Your task to perform on an android device: turn vacation reply on in the gmail app Image 0: 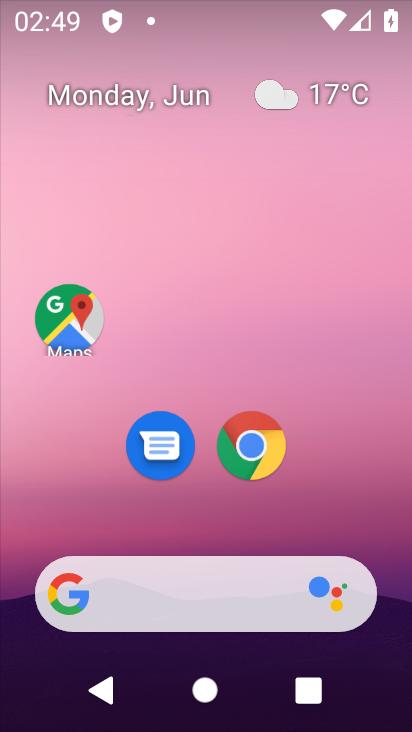
Step 0: drag from (71, 526) to (161, 82)
Your task to perform on an android device: turn vacation reply on in the gmail app Image 1: 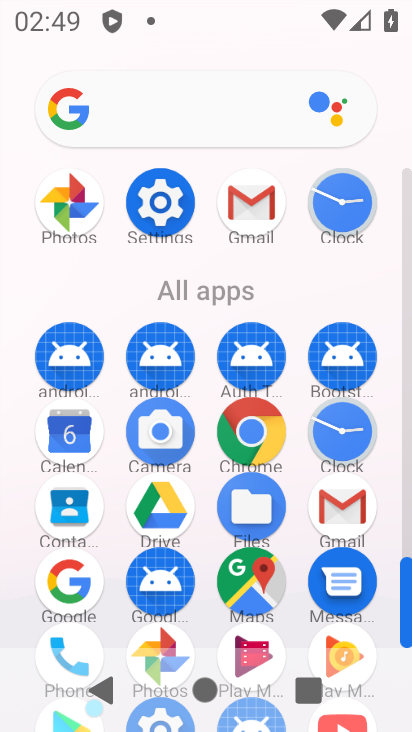
Step 1: drag from (155, 533) to (223, 277)
Your task to perform on an android device: turn vacation reply on in the gmail app Image 2: 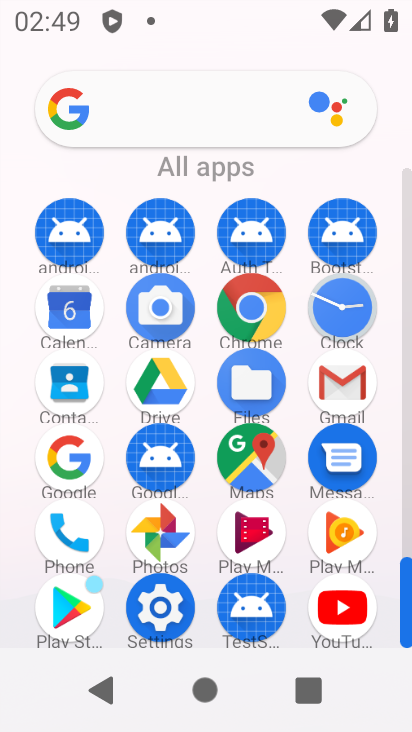
Step 2: click (161, 615)
Your task to perform on an android device: turn vacation reply on in the gmail app Image 3: 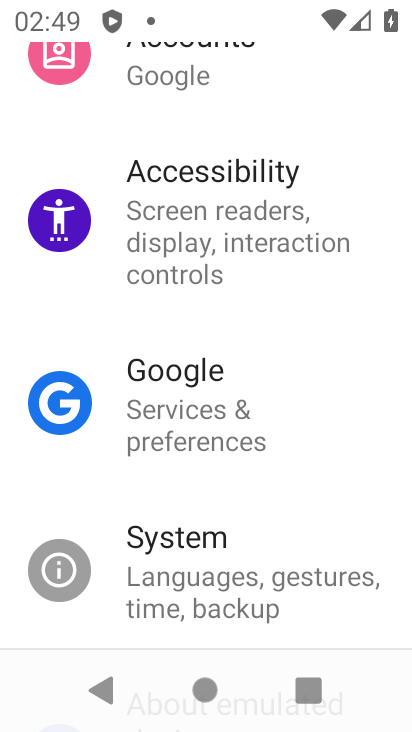
Step 3: press home button
Your task to perform on an android device: turn vacation reply on in the gmail app Image 4: 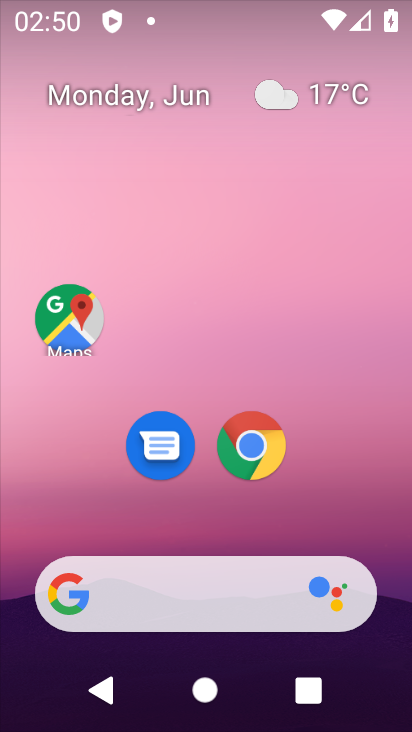
Step 4: drag from (108, 544) to (190, 25)
Your task to perform on an android device: turn vacation reply on in the gmail app Image 5: 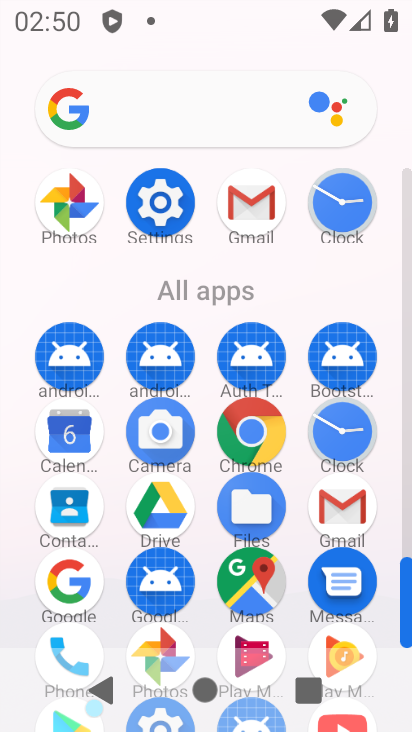
Step 5: click (346, 520)
Your task to perform on an android device: turn vacation reply on in the gmail app Image 6: 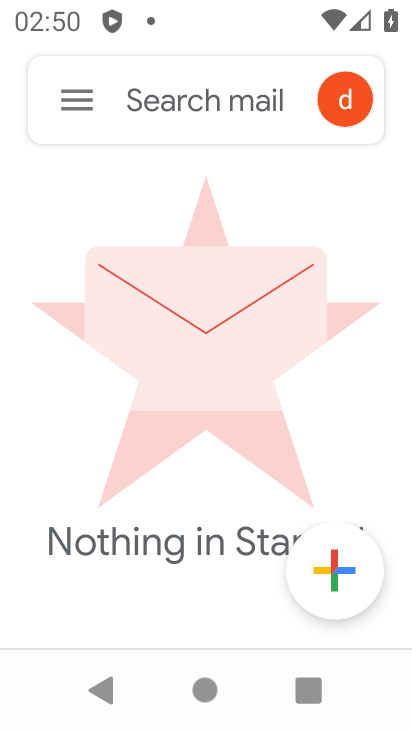
Step 6: click (74, 97)
Your task to perform on an android device: turn vacation reply on in the gmail app Image 7: 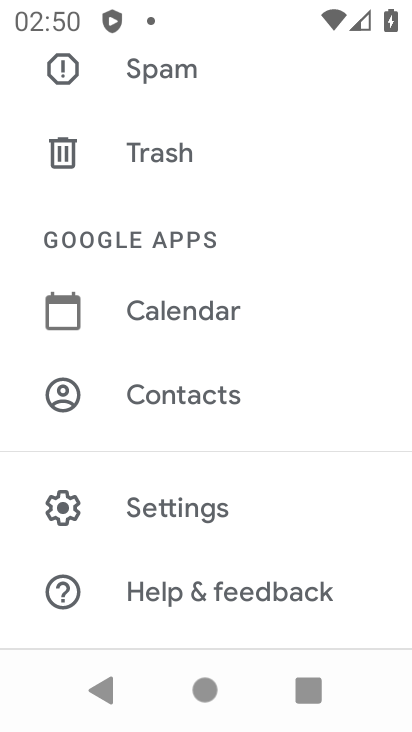
Step 7: click (218, 516)
Your task to perform on an android device: turn vacation reply on in the gmail app Image 8: 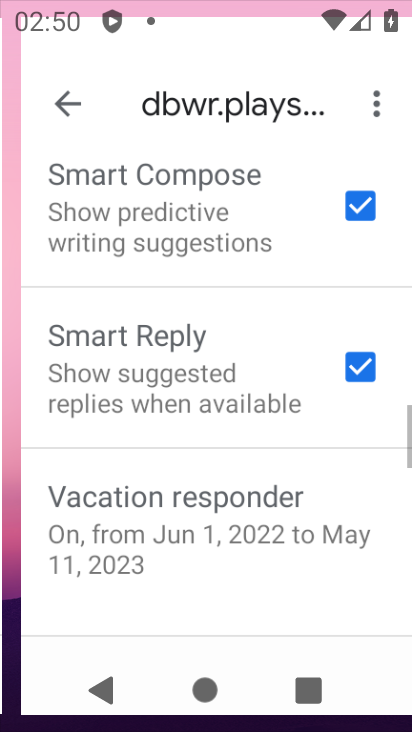
Step 8: drag from (63, 548) to (232, 187)
Your task to perform on an android device: turn vacation reply on in the gmail app Image 9: 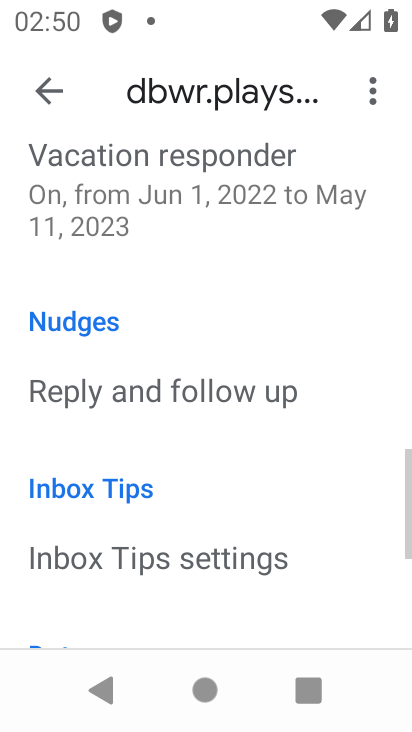
Step 9: click (200, 239)
Your task to perform on an android device: turn vacation reply on in the gmail app Image 10: 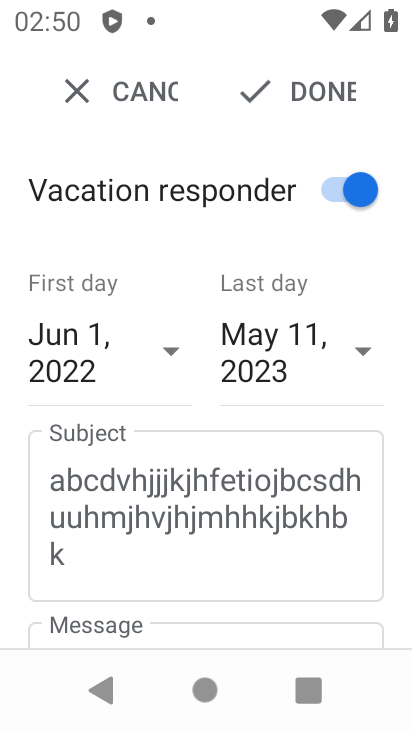
Step 10: task complete